Your task to perform on an android device: install app "Microsoft Authenticator" Image 0: 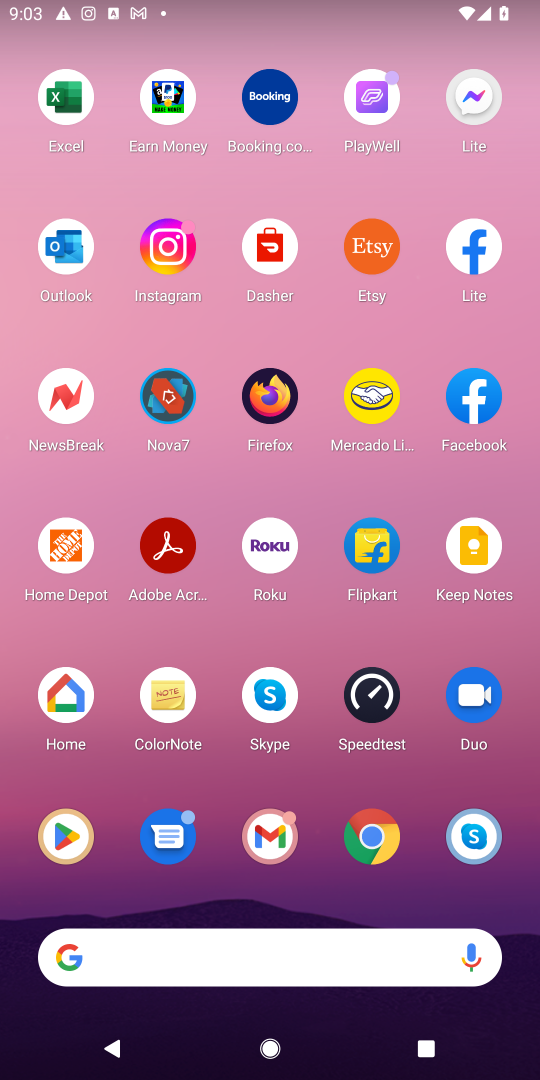
Step 0: press home button
Your task to perform on an android device: install app "Microsoft Authenticator" Image 1: 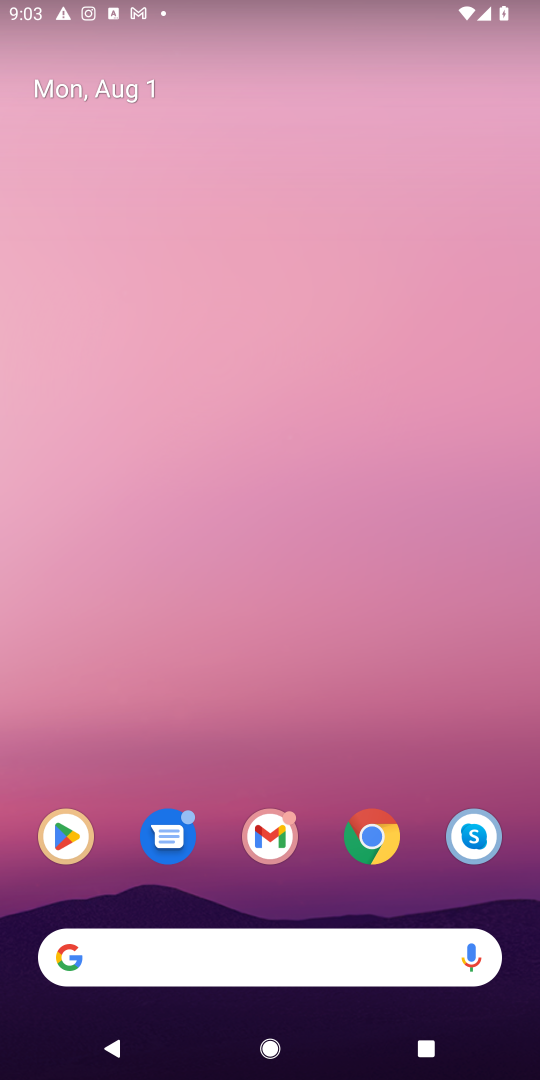
Step 1: click (75, 828)
Your task to perform on an android device: install app "Microsoft Authenticator" Image 2: 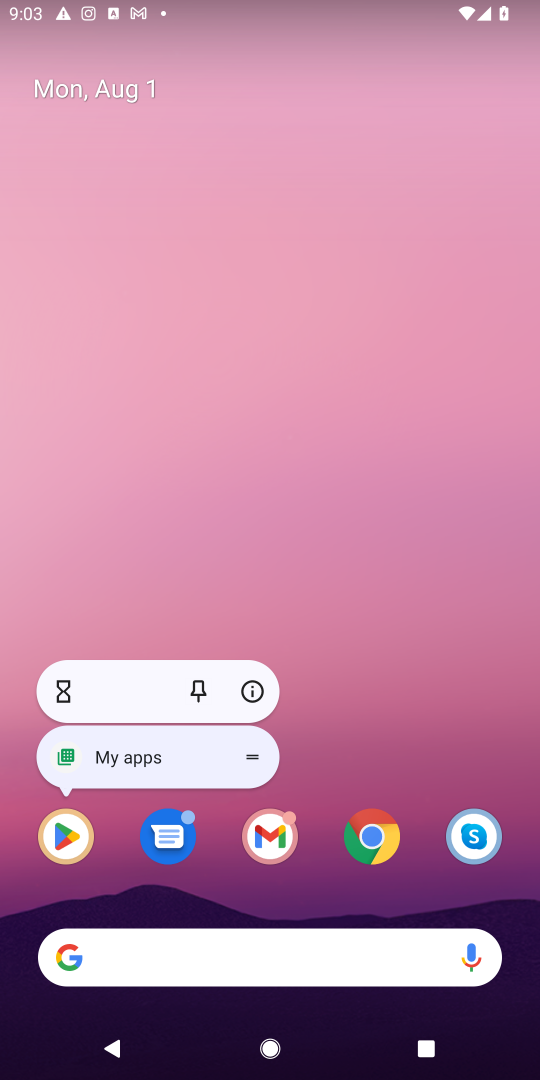
Step 2: click (73, 832)
Your task to perform on an android device: install app "Microsoft Authenticator" Image 3: 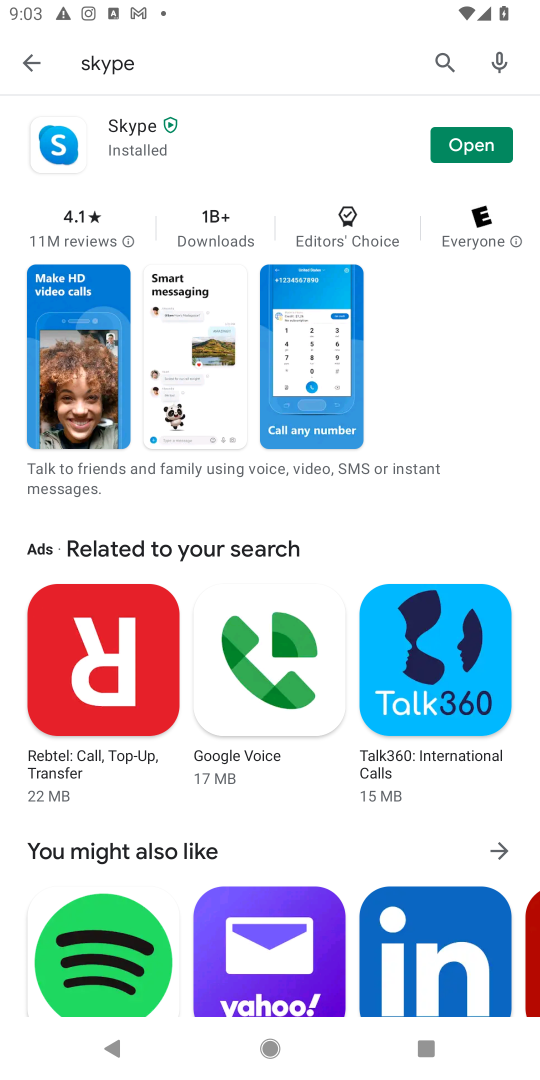
Step 3: click (441, 51)
Your task to perform on an android device: install app "Microsoft Authenticator" Image 4: 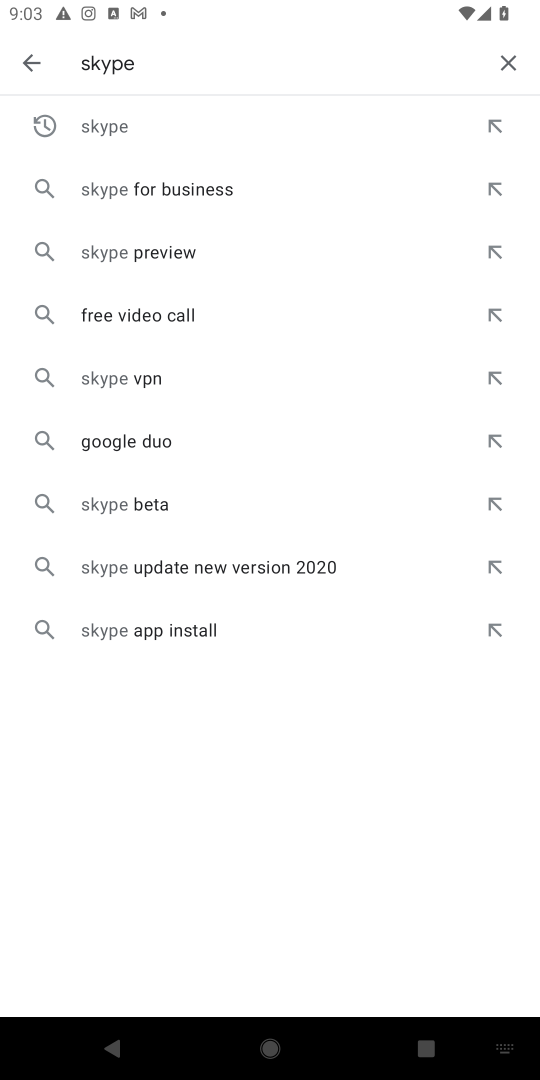
Step 4: click (506, 55)
Your task to perform on an android device: install app "Microsoft Authenticator" Image 5: 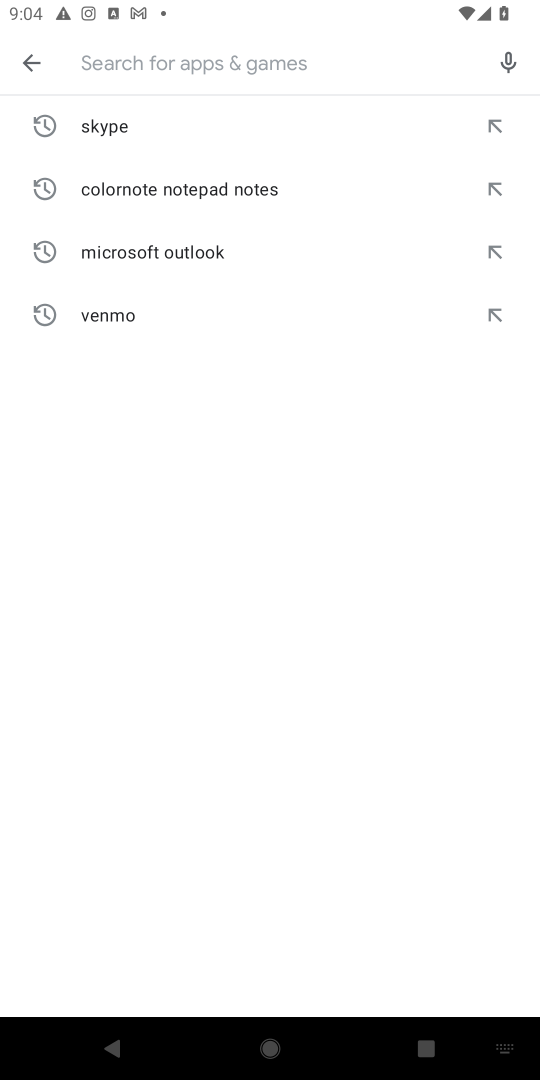
Step 5: type "Microsoft Authenticator"
Your task to perform on an android device: install app "Microsoft Authenticator" Image 6: 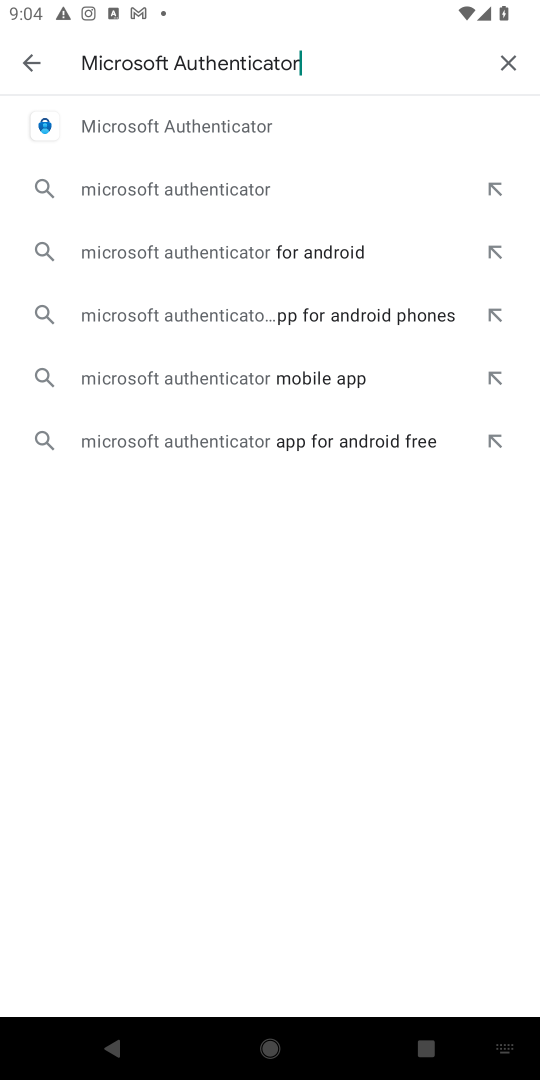
Step 6: click (233, 124)
Your task to perform on an android device: install app "Microsoft Authenticator" Image 7: 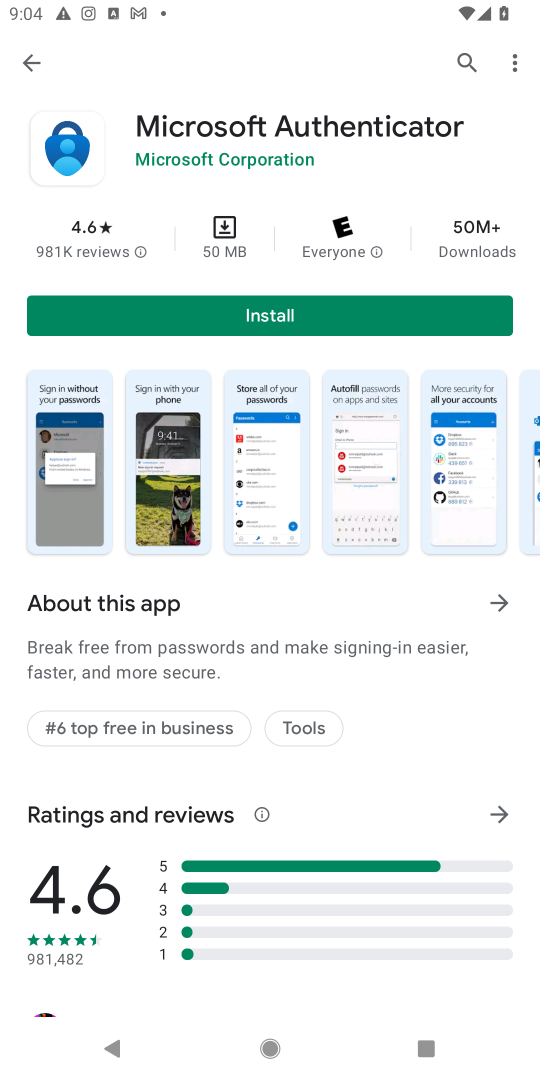
Step 7: click (271, 309)
Your task to perform on an android device: install app "Microsoft Authenticator" Image 8: 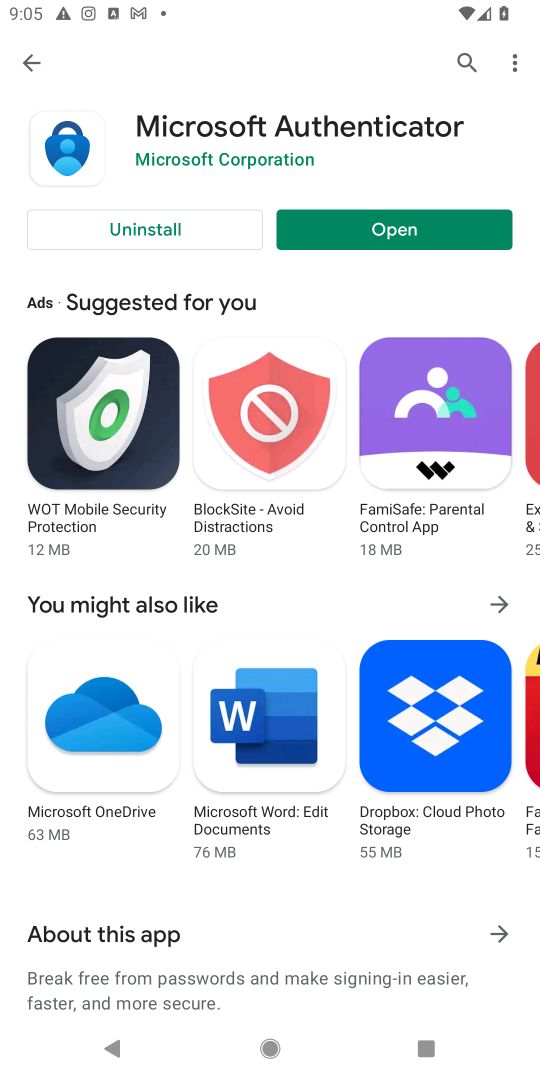
Step 8: task complete